Your task to perform on an android device: Go to CNN.com Image 0: 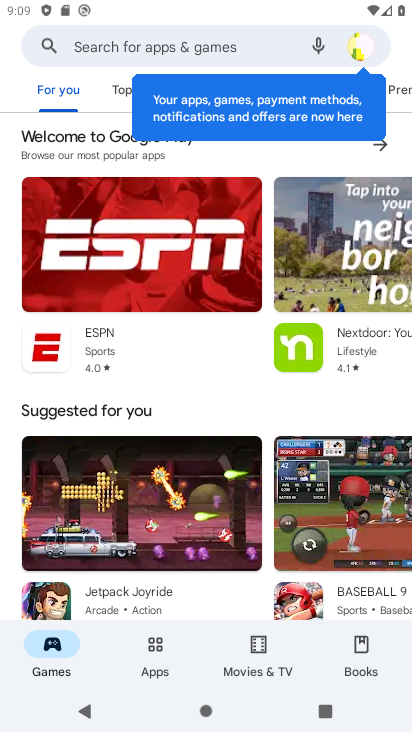
Step 0: press home button
Your task to perform on an android device: Go to CNN.com Image 1: 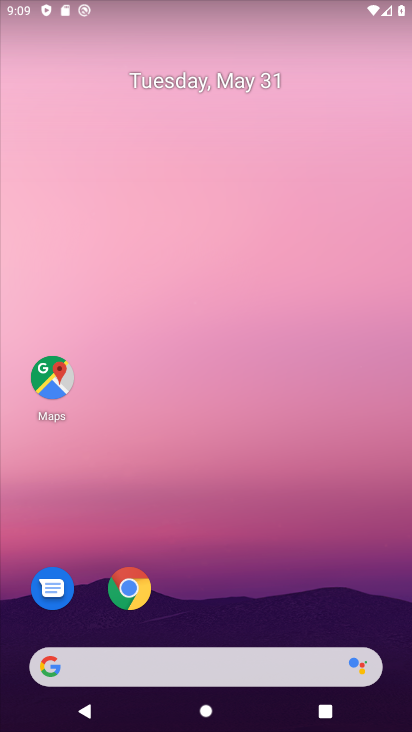
Step 1: click (124, 593)
Your task to perform on an android device: Go to CNN.com Image 2: 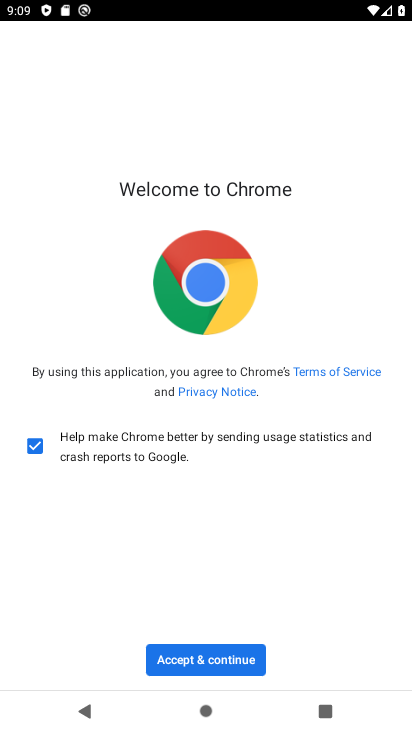
Step 2: click (188, 656)
Your task to perform on an android device: Go to CNN.com Image 3: 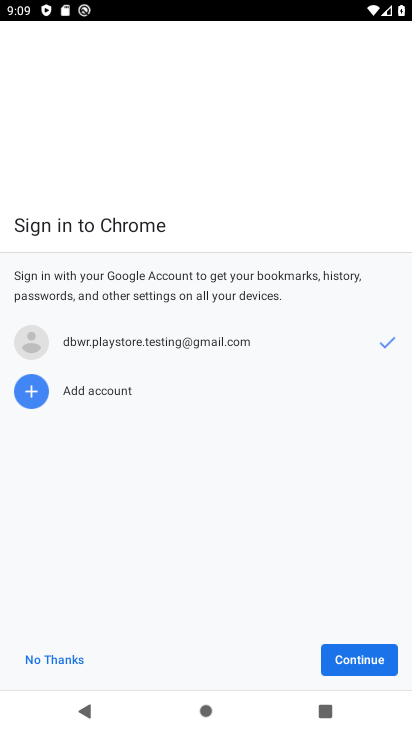
Step 3: click (370, 652)
Your task to perform on an android device: Go to CNN.com Image 4: 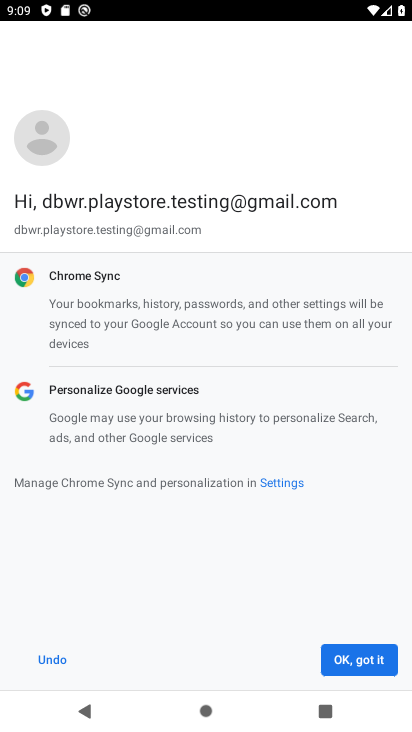
Step 4: click (370, 652)
Your task to perform on an android device: Go to CNN.com Image 5: 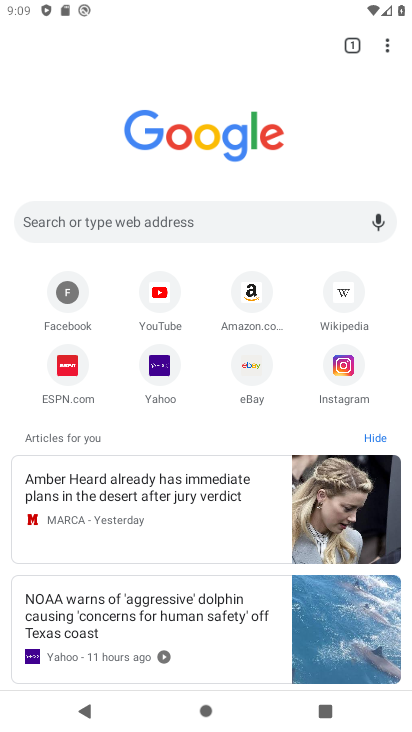
Step 5: click (156, 235)
Your task to perform on an android device: Go to CNN.com Image 6: 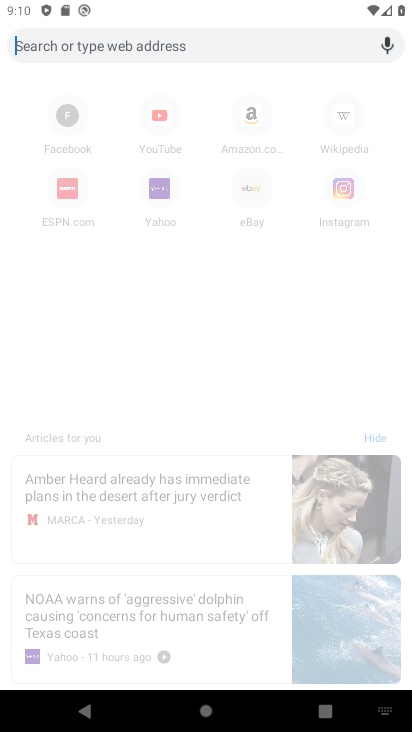
Step 6: type "CNN.com"
Your task to perform on an android device: Go to CNN.com Image 7: 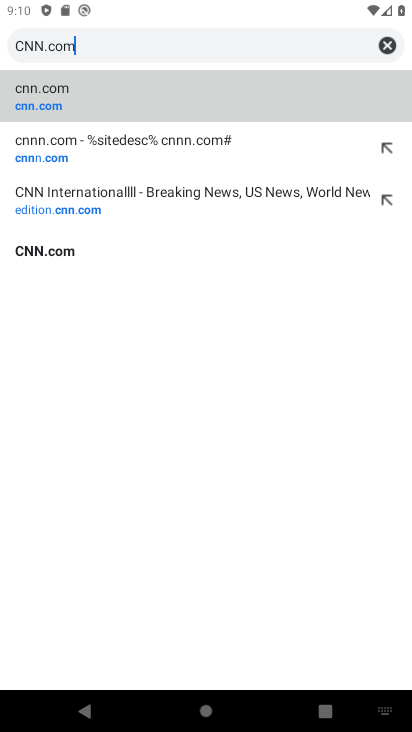
Step 7: click (45, 88)
Your task to perform on an android device: Go to CNN.com Image 8: 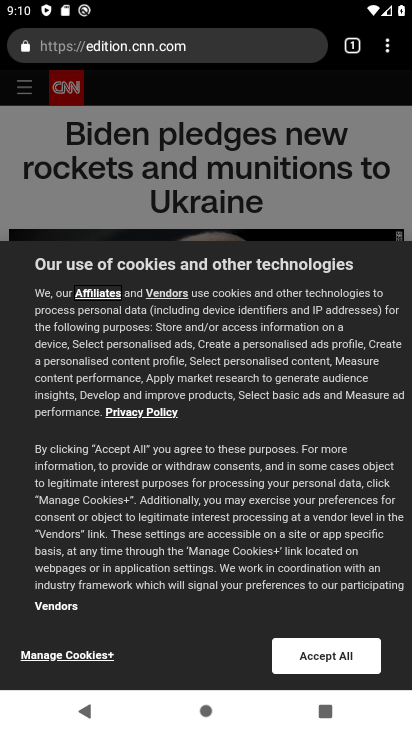
Step 8: task complete